Your task to perform on an android device: What's the news in Pakistan? Image 0: 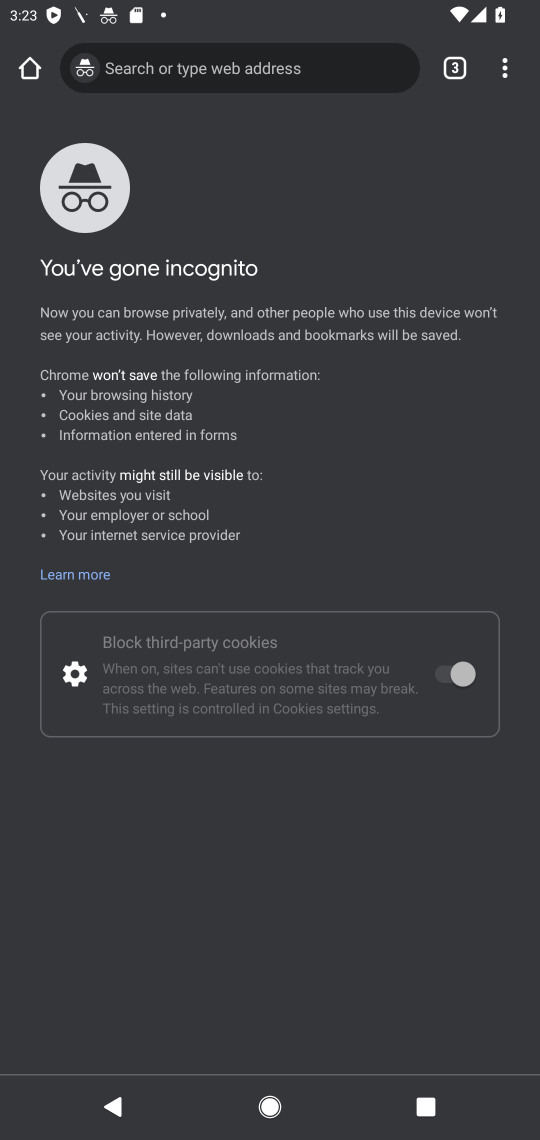
Step 0: press home button
Your task to perform on an android device: What's the news in Pakistan? Image 1: 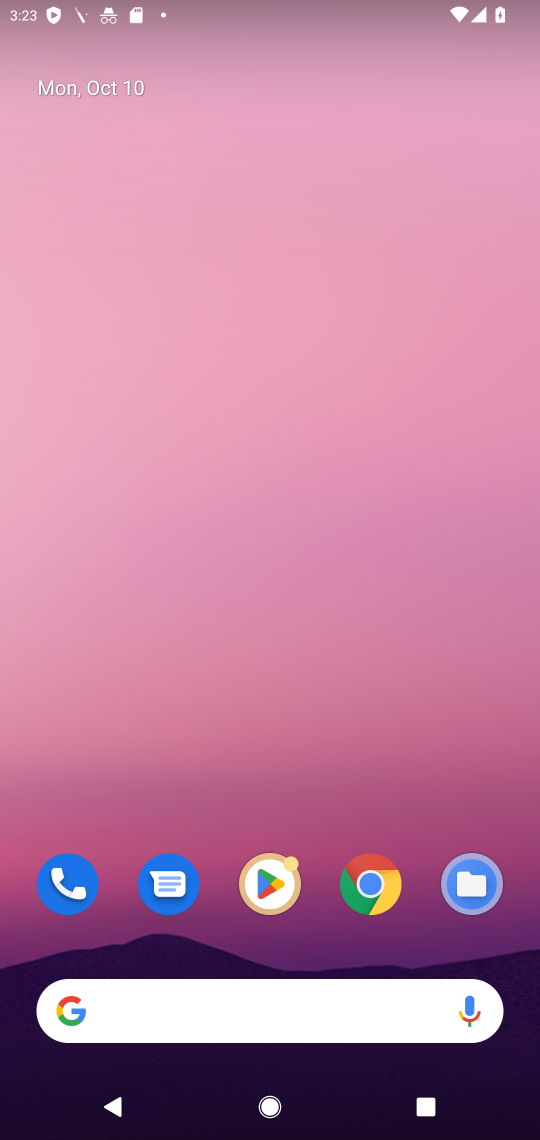
Step 1: click (280, 1010)
Your task to perform on an android device: What's the news in Pakistan? Image 2: 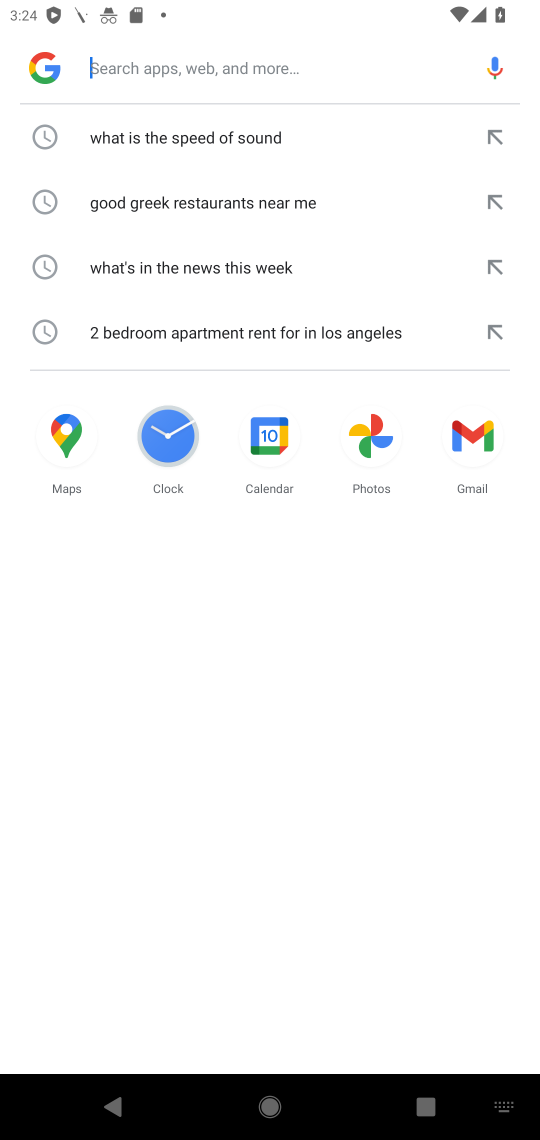
Step 2: type "What's the news in Pakistan?"
Your task to perform on an android device: What's the news in Pakistan? Image 3: 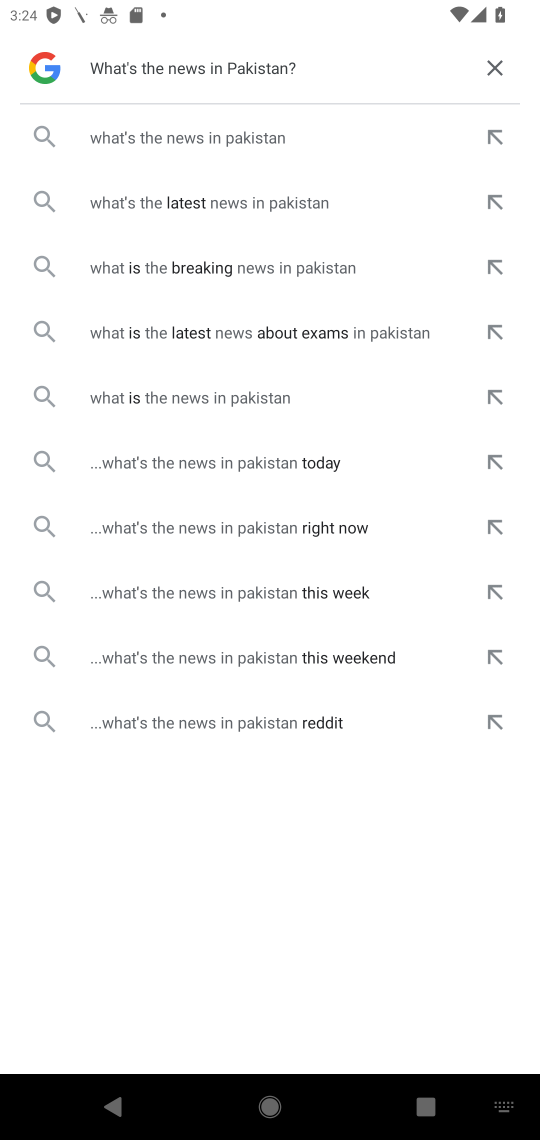
Step 3: click (219, 121)
Your task to perform on an android device: What's the news in Pakistan? Image 4: 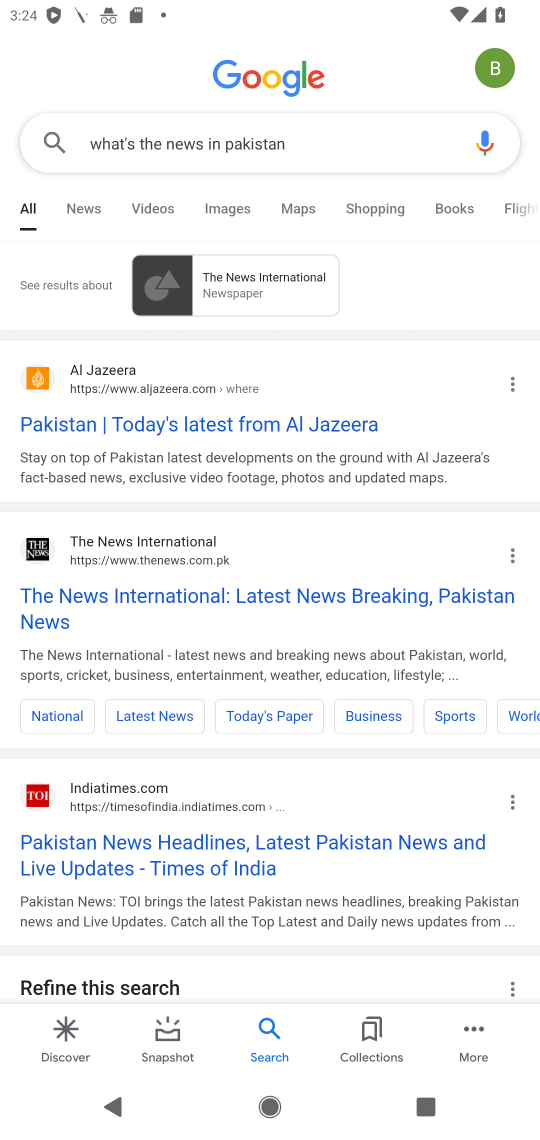
Step 4: click (204, 426)
Your task to perform on an android device: What's the news in Pakistan? Image 5: 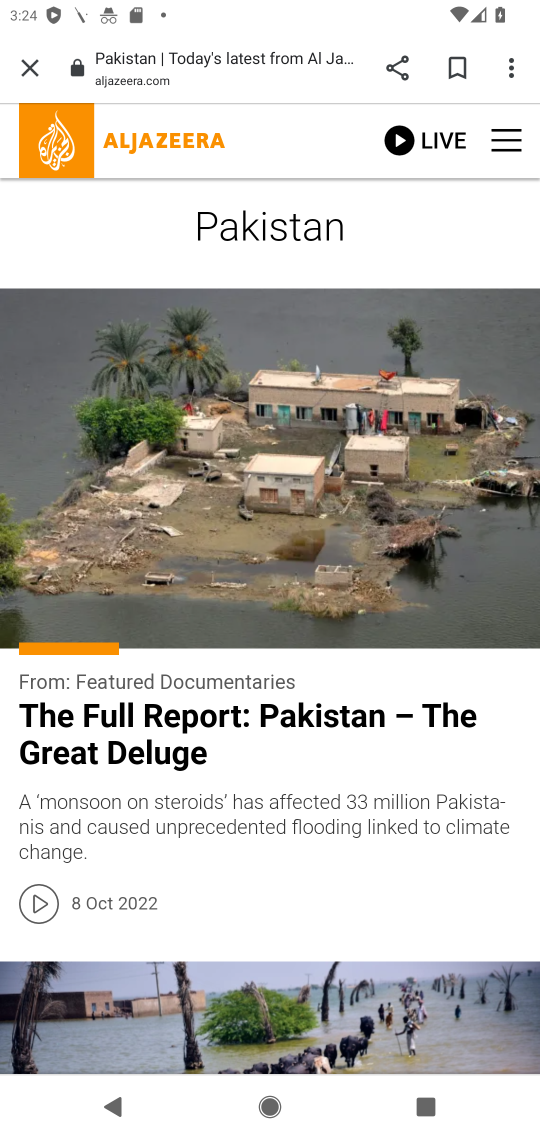
Step 5: task complete